Your task to perform on an android device: Open Chrome and go to the settings page Image 0: 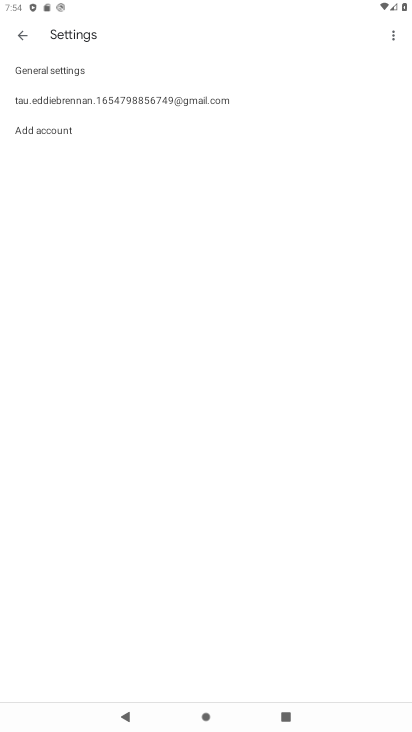
Step 0: press home button
Your task to perform on an android device: Open Chrome and go to the settings page Image 1: 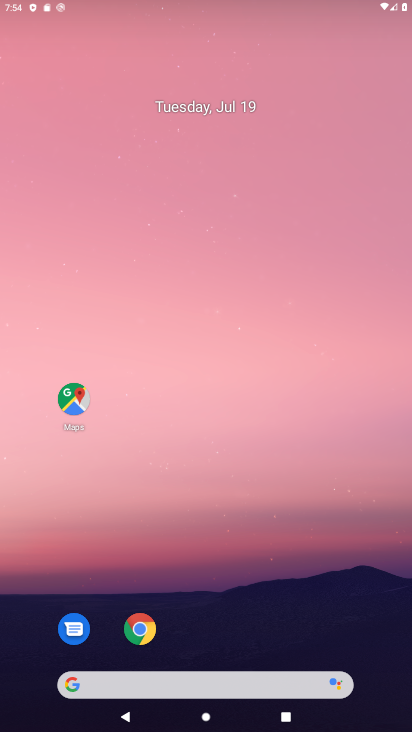
Step 1: drag from (194, 543) to (225, 33)
Your task to perform on an android device: Open Chrome and go to the settings page Image 2: 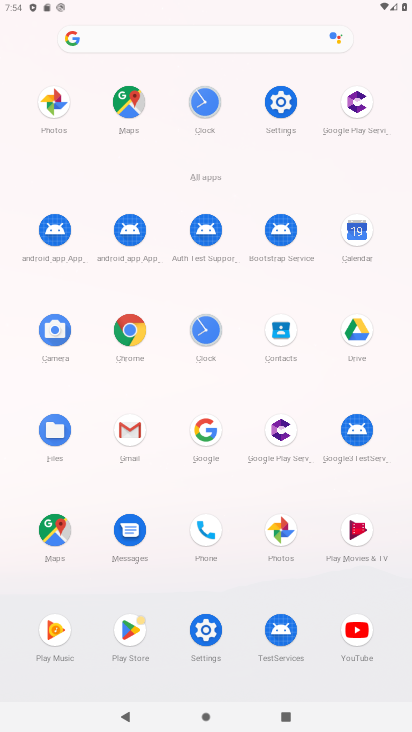
Step 2: click (136, 324)
Your task to perform on an android device: Open Chrome and go to the settings page Image 3: 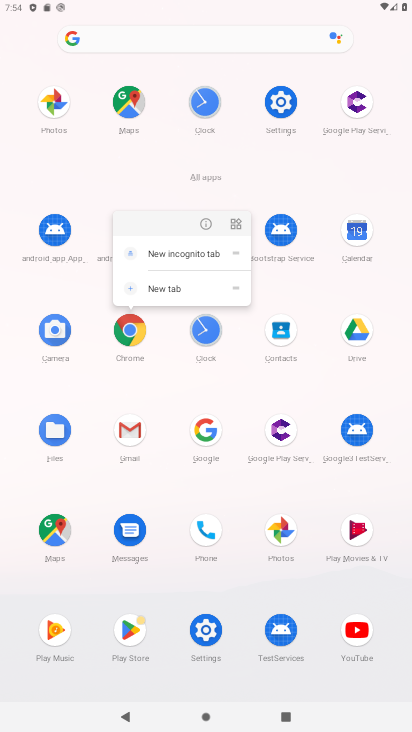
Step 3: click (202, 224)
Your task to perform on an android device: Open Chrome and go to the settings page Image 4: 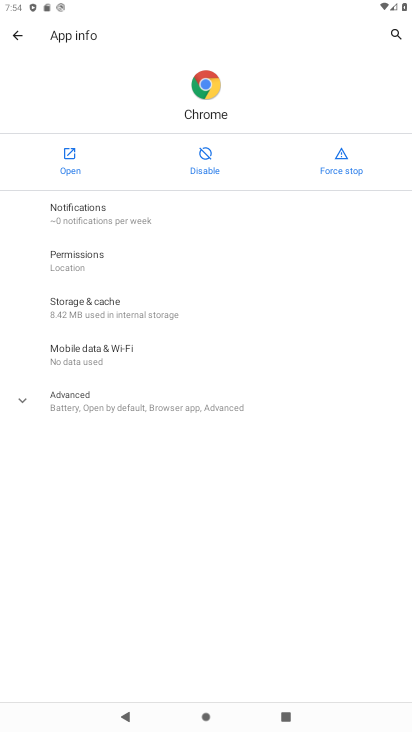
Step 4: click (75, 160)
Your task to perform on an android device: Open Chrome and go to the settings page Image 5: 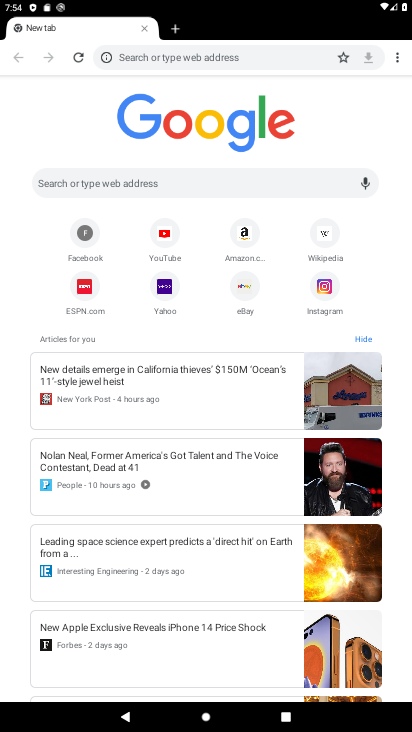
Step 5: click (390, 54)
Your task to perform on an android device: Open Chrome and go to the settings page Image 6: 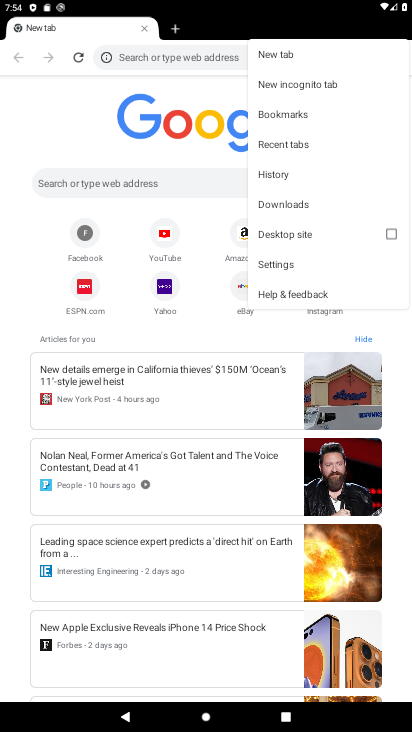
Step 6: click (279, 259)
Your task to perform on an android device: Open Chrome and go to the settings page Image 7: 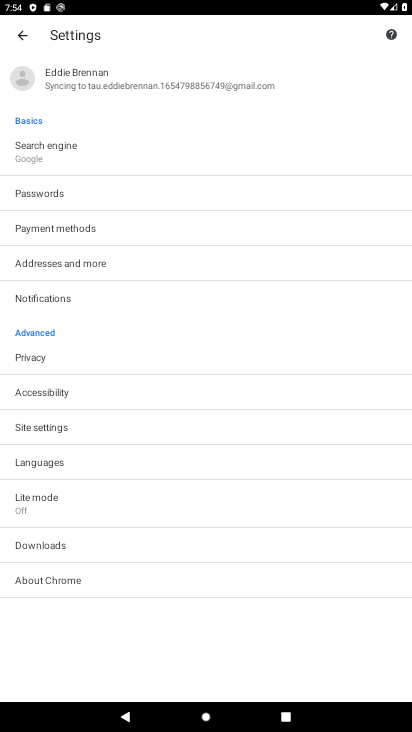
Step 7: task complete